Your task to perform on an android device: toggle priority inbox in the gmail app Image 0: 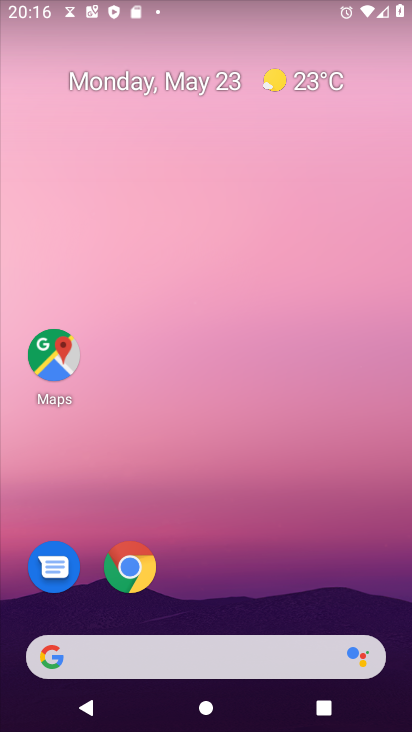
Step 0: drag from (242, 583) to (255, 281)
Your task to perform on an android device: toggle priority inbox in the gmail app Image 1: 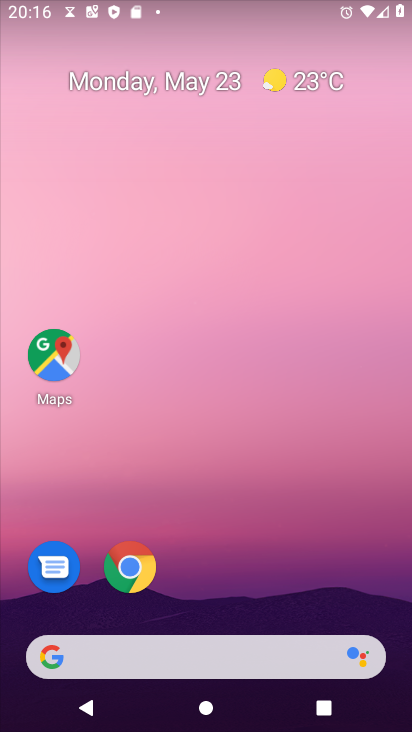
Step 1: drag from (221, 648) to (239, 242)
Your task to perform on an android device: toggle priority inbox in the gmail app Image 2: 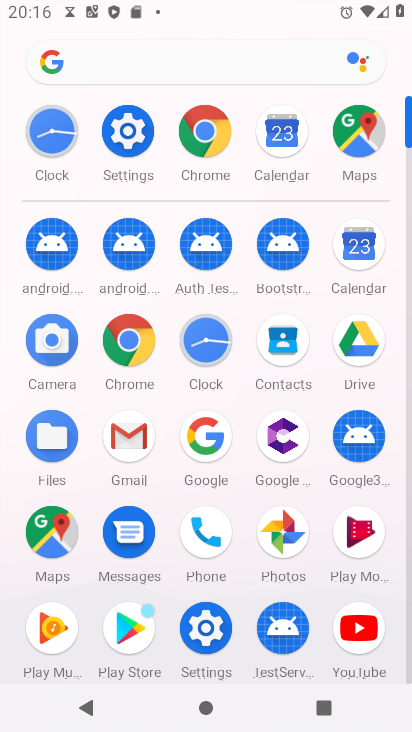
Step 2: click (112, 432)
Your task to perform on an android device: toggle priority inbox in the gmail app Image 3: 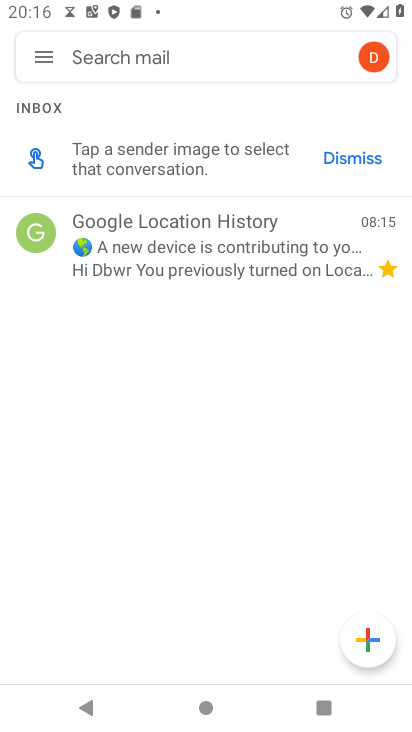
Step 3: click (43, 60)
Your task to perform on an android device: toggle priority inbox in the gmail app Image 4: 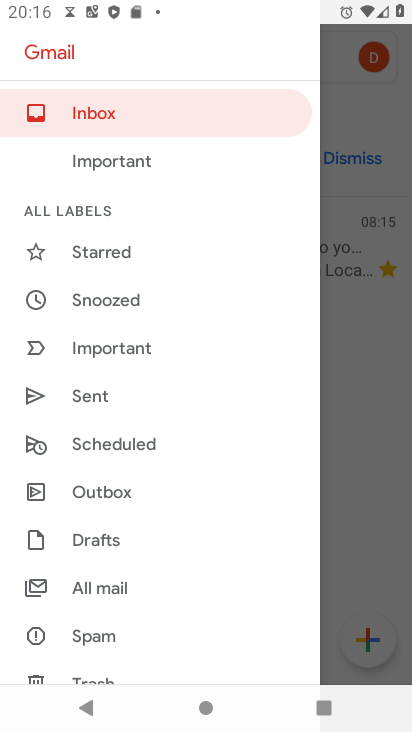
Step 4: drag from (156, 619) to (166, 330)
Your task to perform on an android device: toggle priority inbox in the gmail app Image 5: 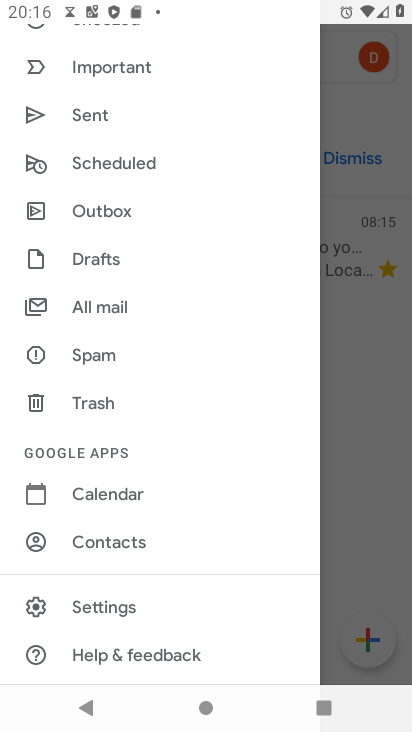
Step 5: click (112, 604)
Your task to perform on an android device: toggle priority inbox in the gmail app Image 6: 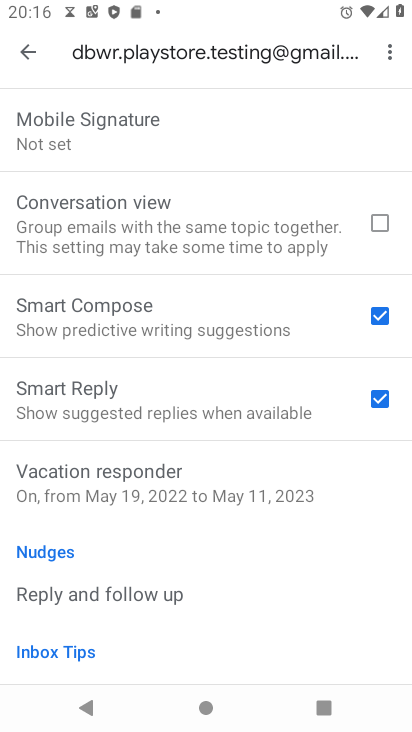
Step 6: drag from (182, 180) to (226, 630)
Your task to perform on an android device: toggle priority inbox in the gmail app Image 7: 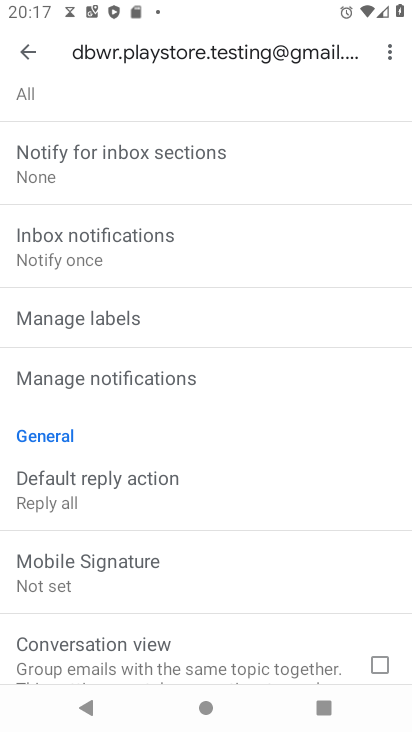
Step 7: drag from (159, 172) to (216, 543)
Your task to perform on an android device: toggle priority inbox in the gmail app Image 8: 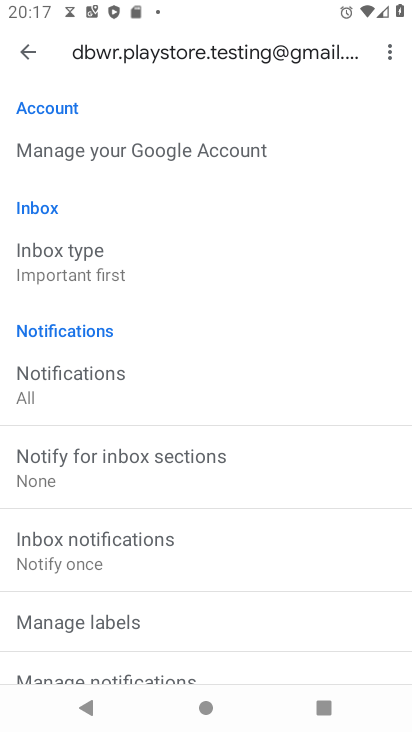
Step 8: click (89, 373)
Your task to perform on an android device: toggle priority inbox in the gmail app Image 9: 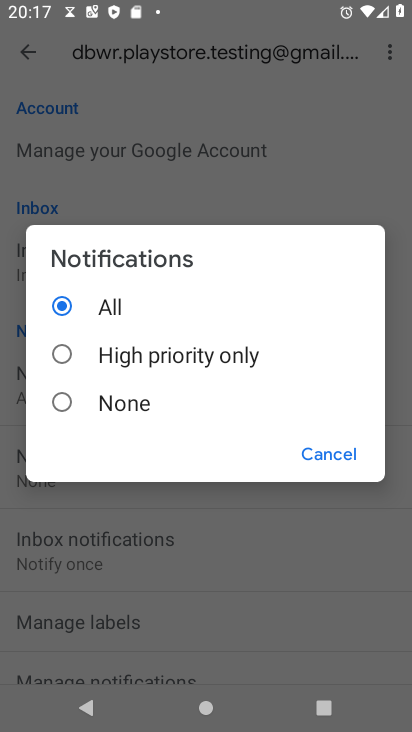
Step 9: click (318, 459)
Your task to perform on an android device: toggle priority inbox in the gmail app Image 10: 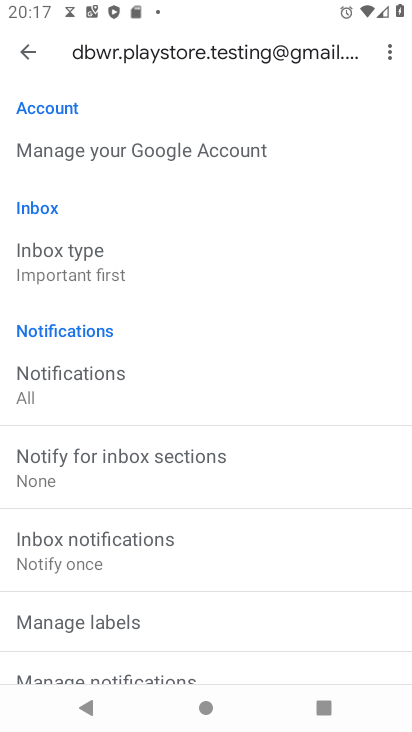
Step 10: click (77, 275)
Your task to perform on an android device: toggle priority inbox in the gmail app Image 11: 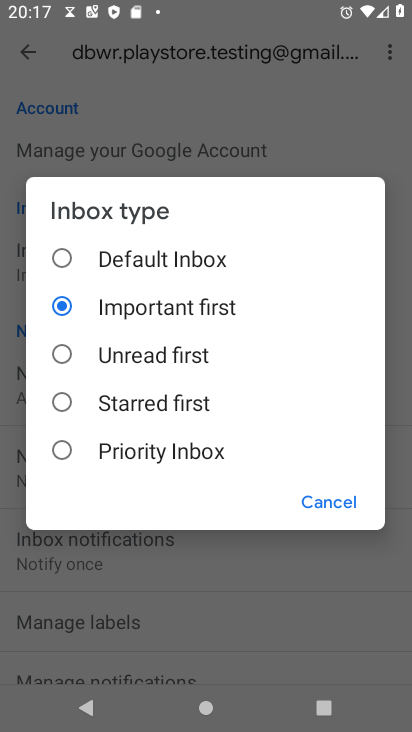
Step 11: click (169, 448)
Your task to perform on an android device: toggle priority inbox in the gmail app Image 12: 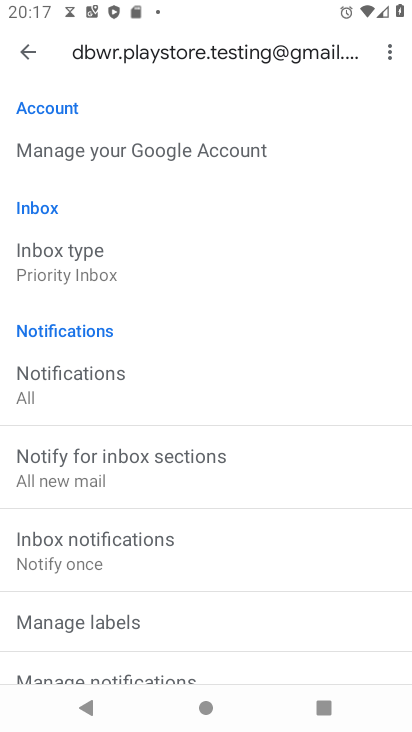
Step 12: task complete